Your task to perform on an android device: Open Wikipedia Image 0: 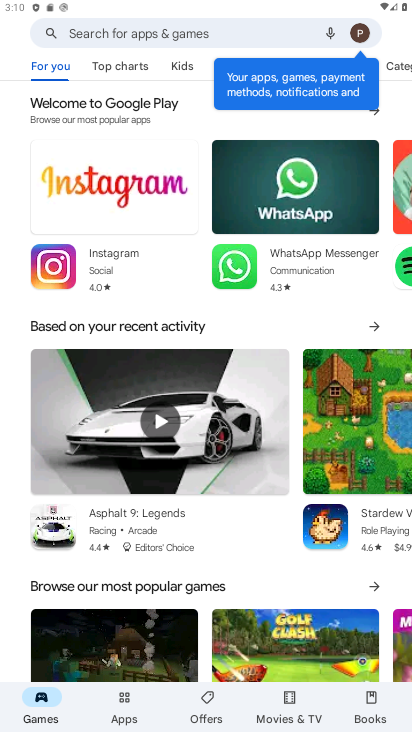
Step 0: press home button
Your task to perform on an android device: Open Wikipedia Image 1: 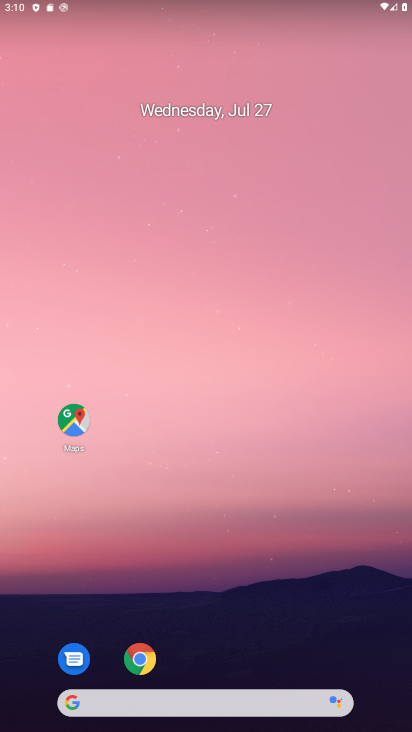
Step 1: click (145, 669)
Your task to perform on an android device: Open Wikipedia Image 2: 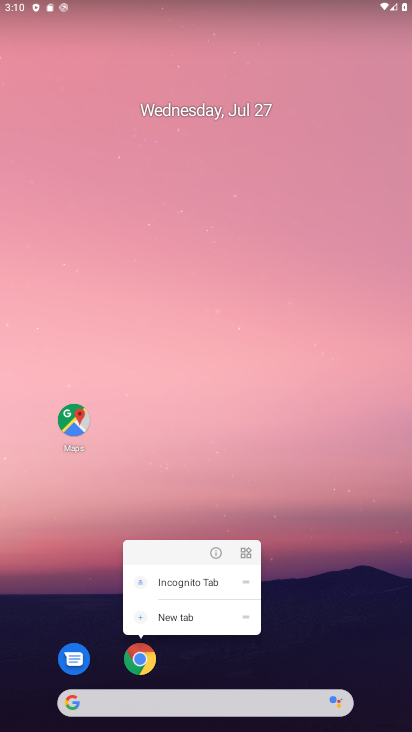
Step 2: click (145, 669)
Your task to perform on an android device: Open Wikipedia Image 3: 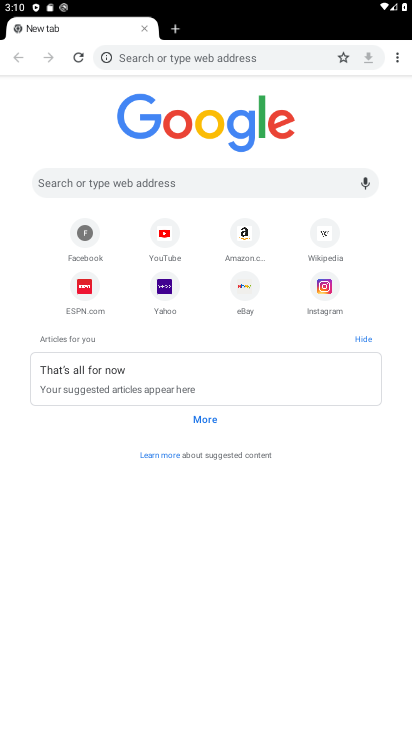
Step 3: click (329, 233)
Your task to perform on an android device: Open Wikipedia Image 4: 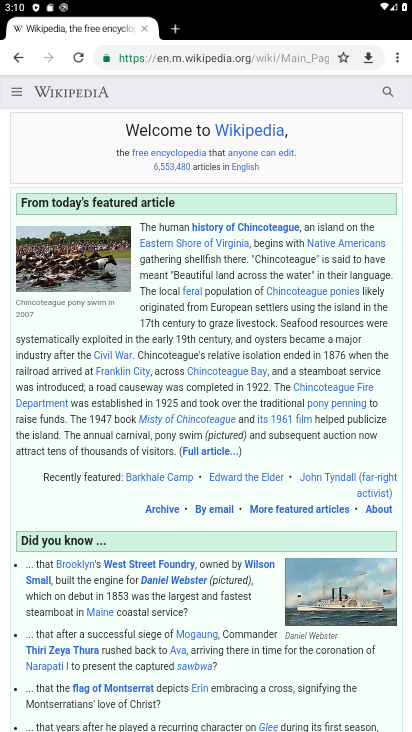
Step 4: task complete